Your task to perform on an android device: toggle notifications settings in the gmail app Image 0: 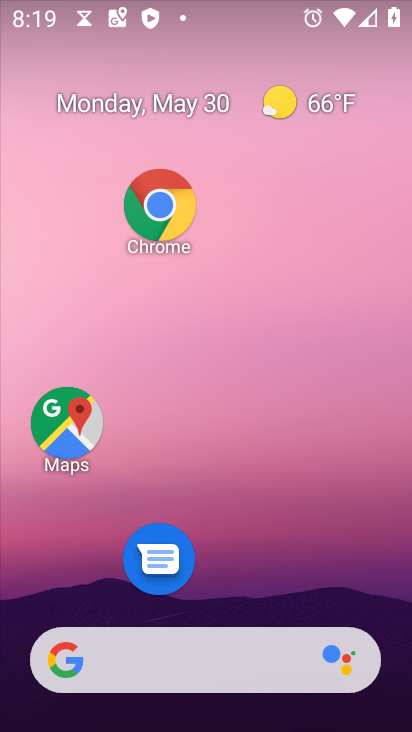
Step 0: click (266, 212)
Your task to perform on an android device: toggle notifications settings in the gmail app Image 1: 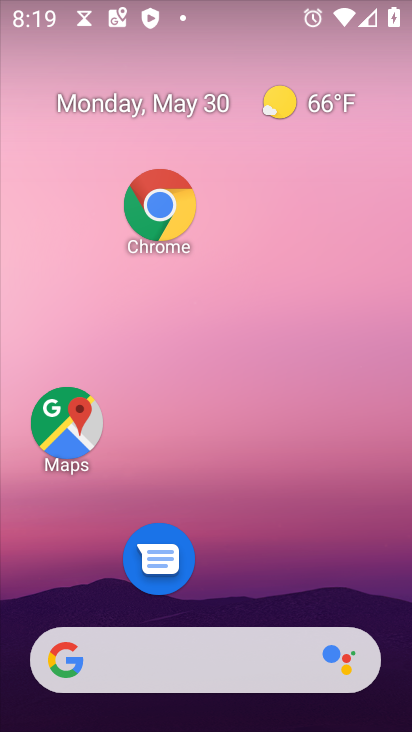
Step 1: drag from (220, 607) to (249, 411)
Your task to perform on an android device: toggle notifications settings in the gmail app Image 2: 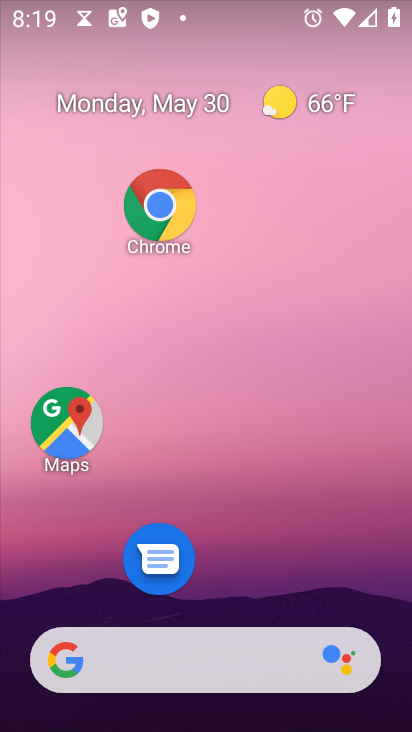
Step 2: drag from (236, 649) to (229, 353)
Your task to perform on an android device: toggle notifications settings in the gmail app Image 3: 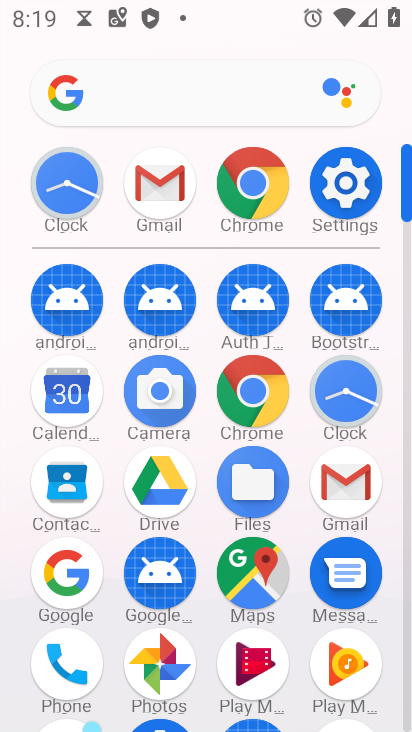
Step 3: drag from (231, 632) to (197, 319)
Your task to perform on an android device: toggle notifications settings in the gmail app Image 4: 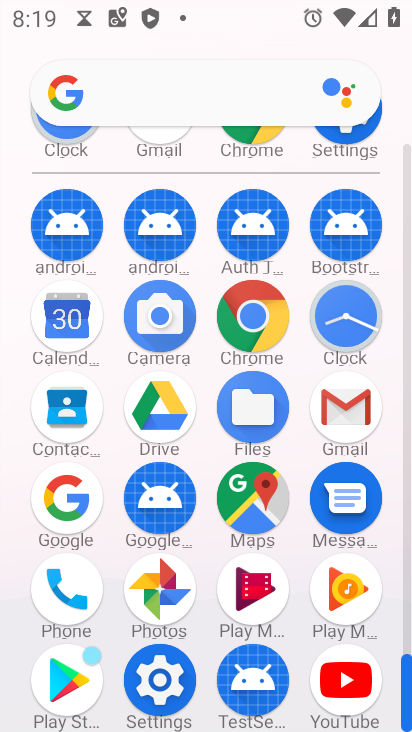
Step 4: click (329, 397)
Your task to perform on an android device: toggle notifications settings in the gmail app Image 5: 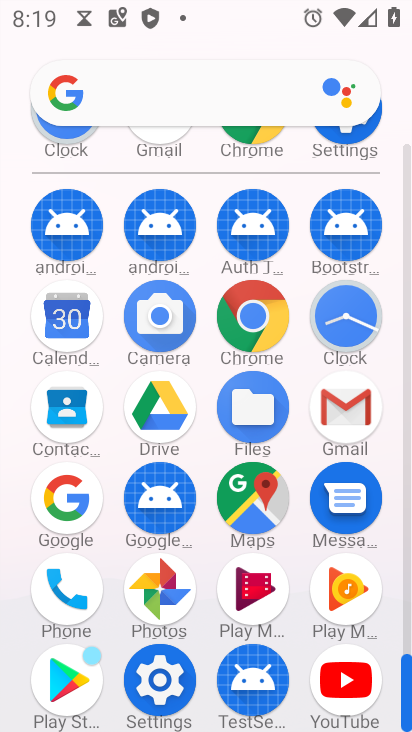
Step 5: click (331, 408)
Your task to perform on an android device: toggle notifications settings in the gmail app Image 6: 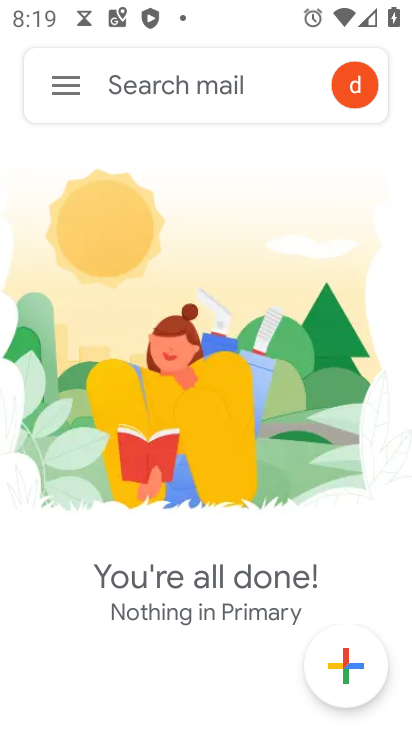
Step 6: click (61, 85)
Your task to perform on an android device: toggle notifications settings in the gmail app Image 7: 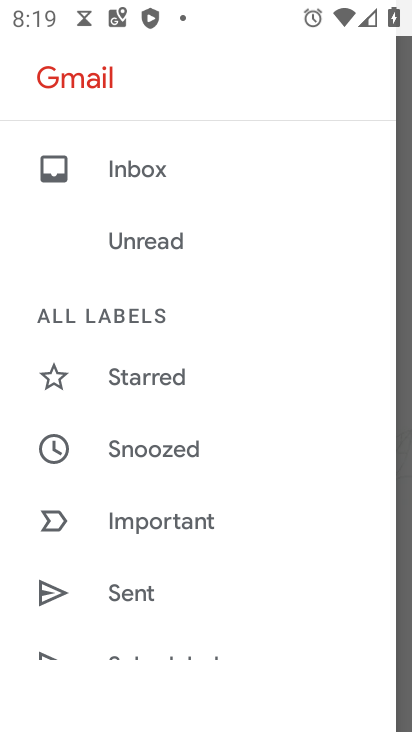
Step 7: drag from (158, 464) to (190, 278)
Your task to perform on an android device: toggle notifications settings in the gmail app Image 8: 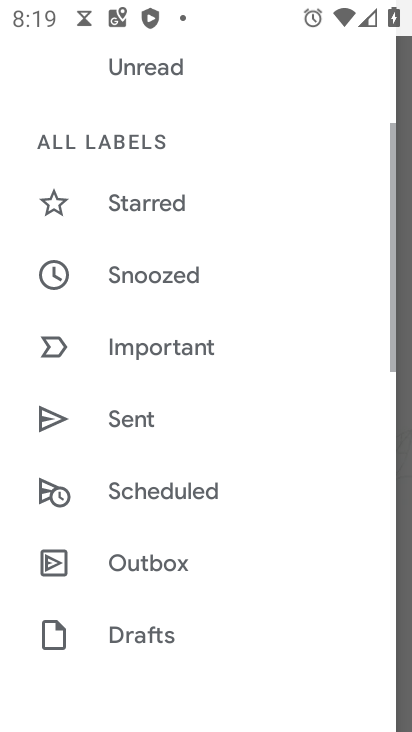
Step 8: drag from (175, 457) to (178, 203)
Your task to perform on an android device: toggle notifications settings in the gmail app Image 9: 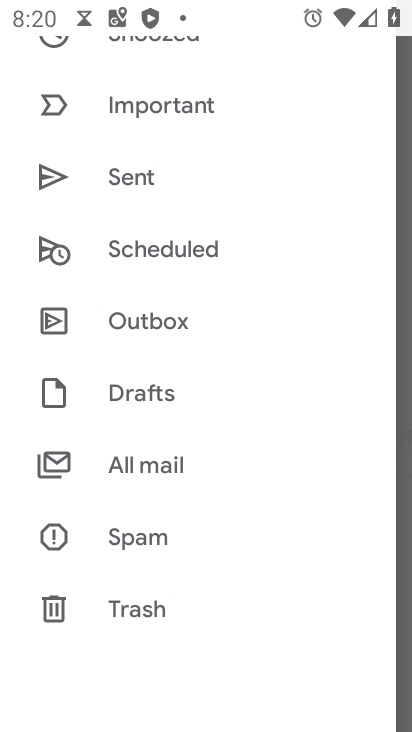
Step 9: click (153, 84)
Your task to perform on an android device: toggle notifications settings in the gmail app Image 10: 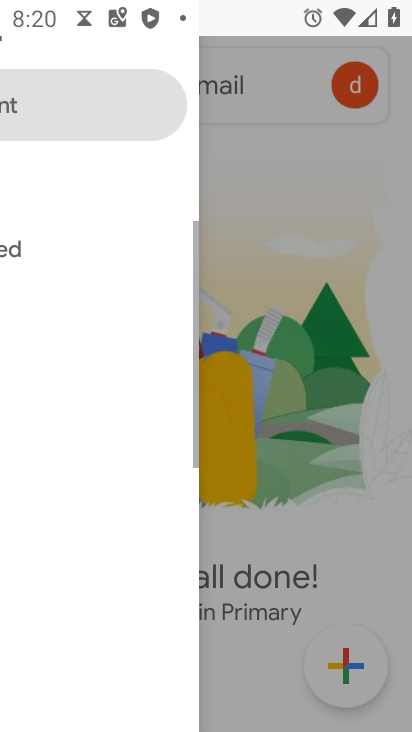
Step 10: drag from (199, 428) to (199, 203)
Your task to perform on an android device: toggle notifications settings in the gmail app Image 11: 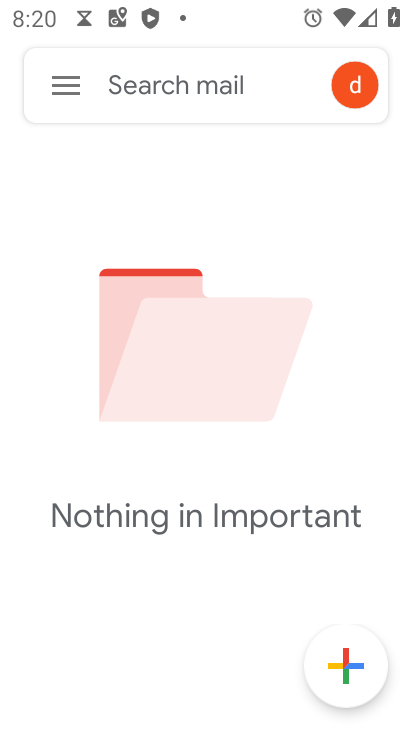
Step 11: click (55, 81)
Your task to perform on an android device: toggle notifications settings in the gmail app Image 12: 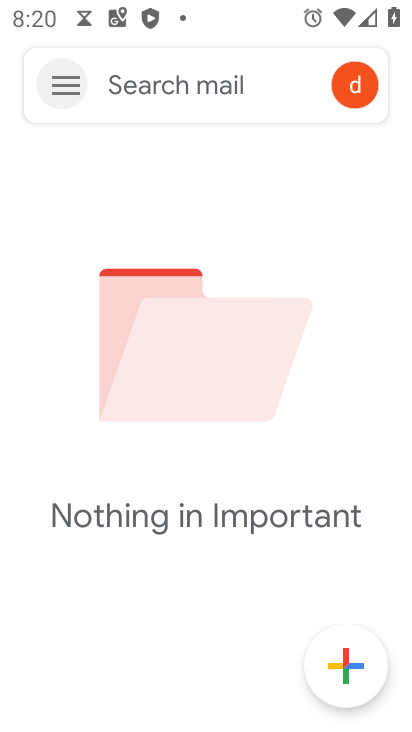
Step 12: click (55, 81)
Your task to perform on an android device: toggle notifications settings in the gmail app Image 13: 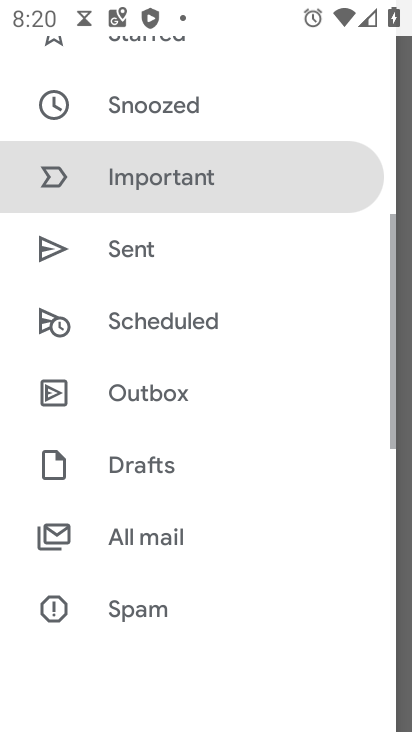
Step 13: drag from (132, 545) to (141, 192)
Your task to perform on an android device: toggle notifications settings in the gmail app Image 14: 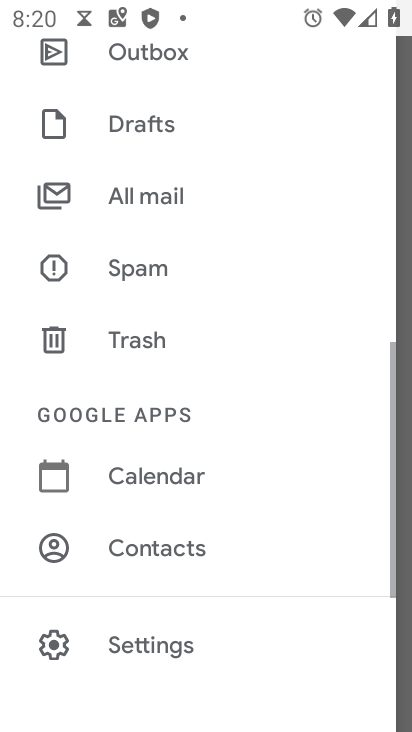
Step 14: drag from (150, 458) to (191, 70)
Your task to perform on an android device: toggle notifications settings in the gmail app Image 15: 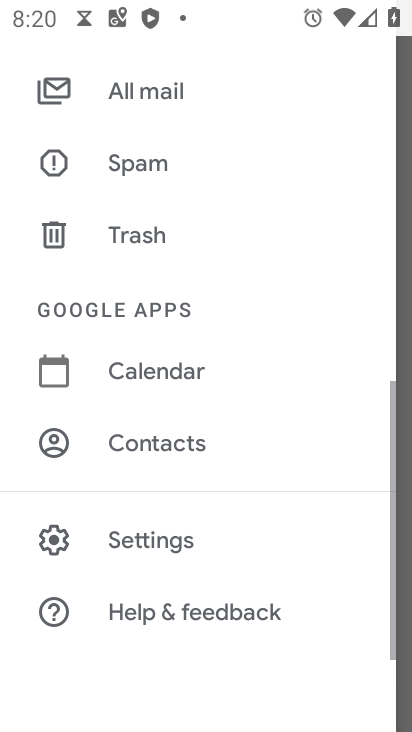
Step 15: click (142, 541)
Your task to perform on an android device: toggle notifications settings in the gmail app Image 16: 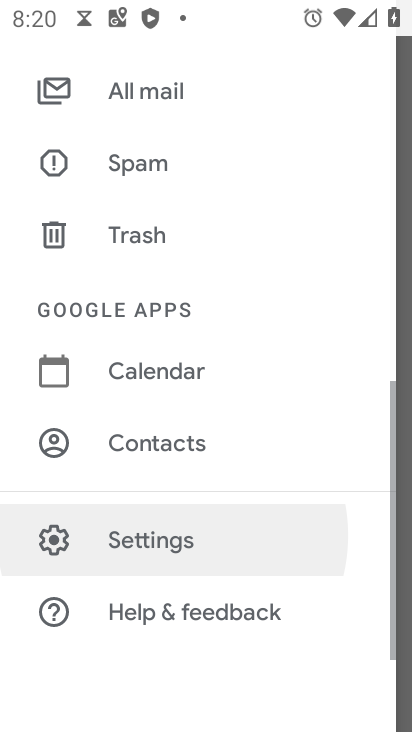
Step 16: click (142, 541)
Your task to perform on an android device: toggle notifications settings in the gmail app Image 17: 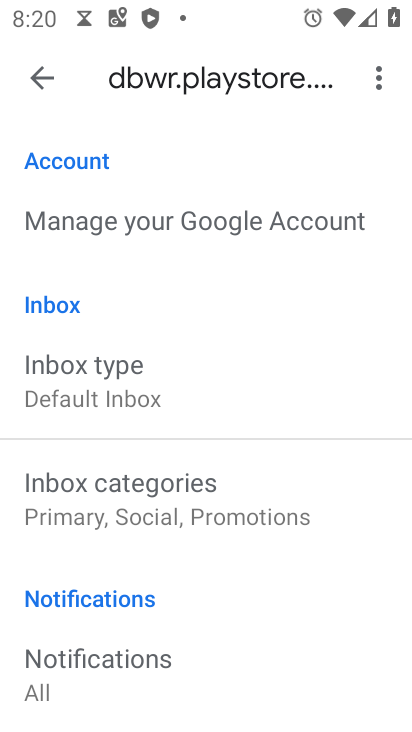
Step 17: click (84, 651)
Your task to perform on an android device: toggle notifications settings in the gmail app Image 18: 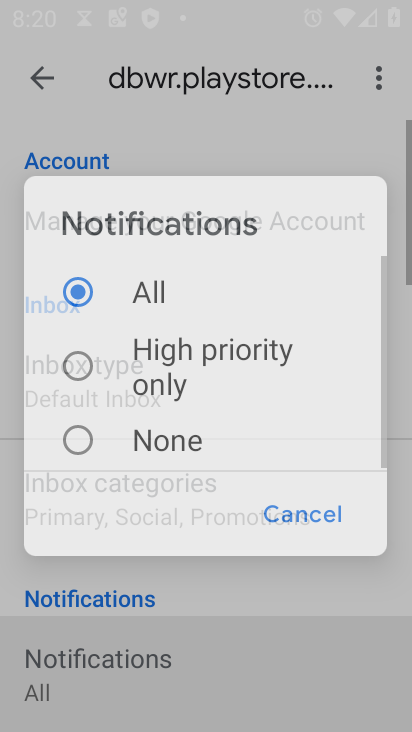
Step 18: click (83, 652)
Your task to perform on an android device: toggle notifications settings in the gmail app Image 19: 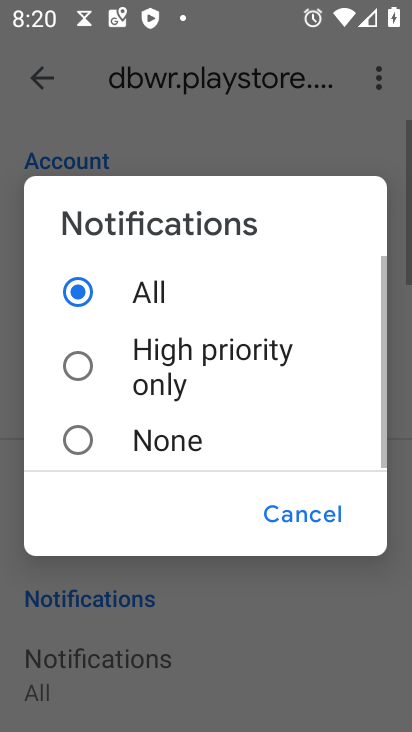
Step 19: click (83, 652)
Your task to perform on an android device: toggle notifications settings in the gmail app Image 20: 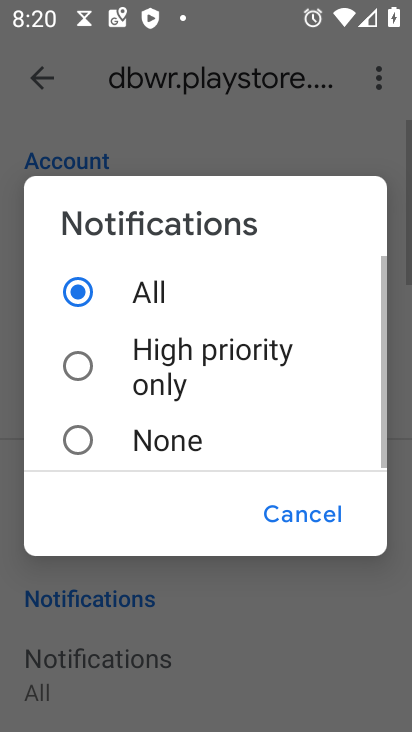
Step 20: click (76, 360)
Your task to perform on an android device: toggle notifications settings in the gmail app Image 21: 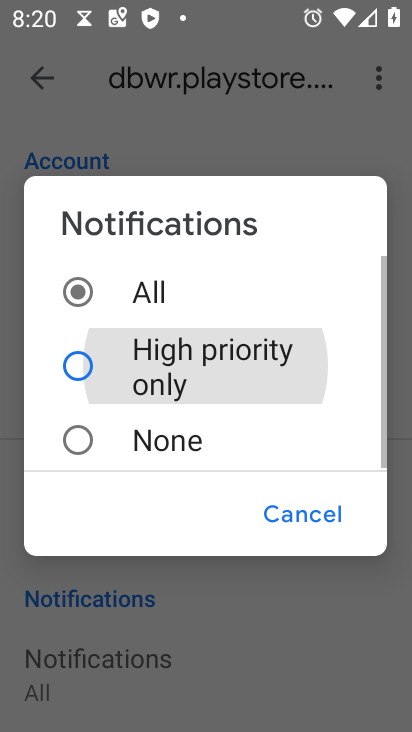
Step 21: click (76, 360)
Your task to perform on an android device: toggle notifications settings in the gmail app Image 22: 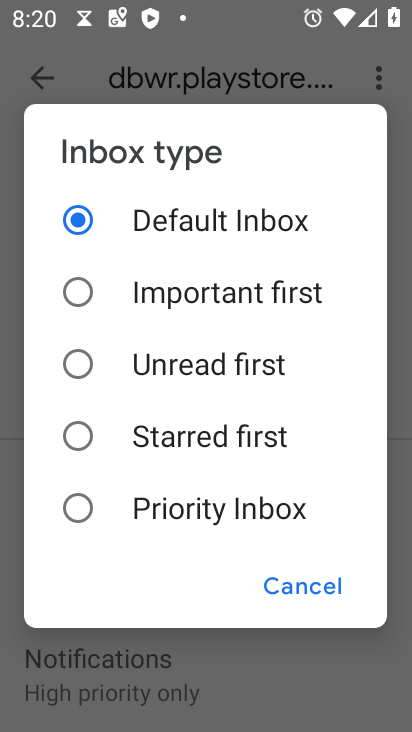
Step 22: click (292, 573)
Your task to perform on an android device: toggle notifications settings in the gmail app Image 23: 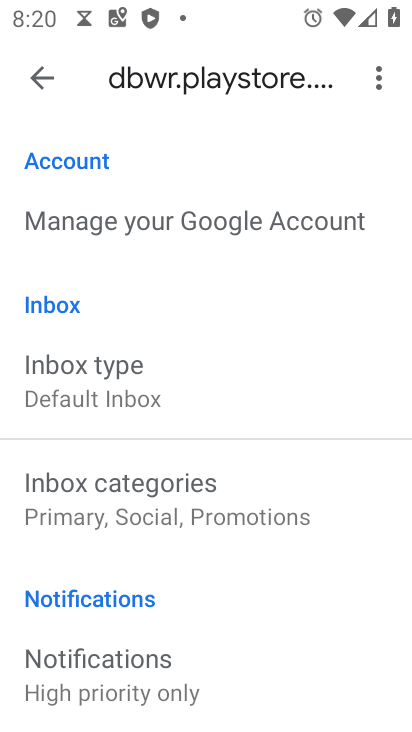
Step 23: task complete